Your task to perform on an android device: install app "VLC for Android" Image 0: 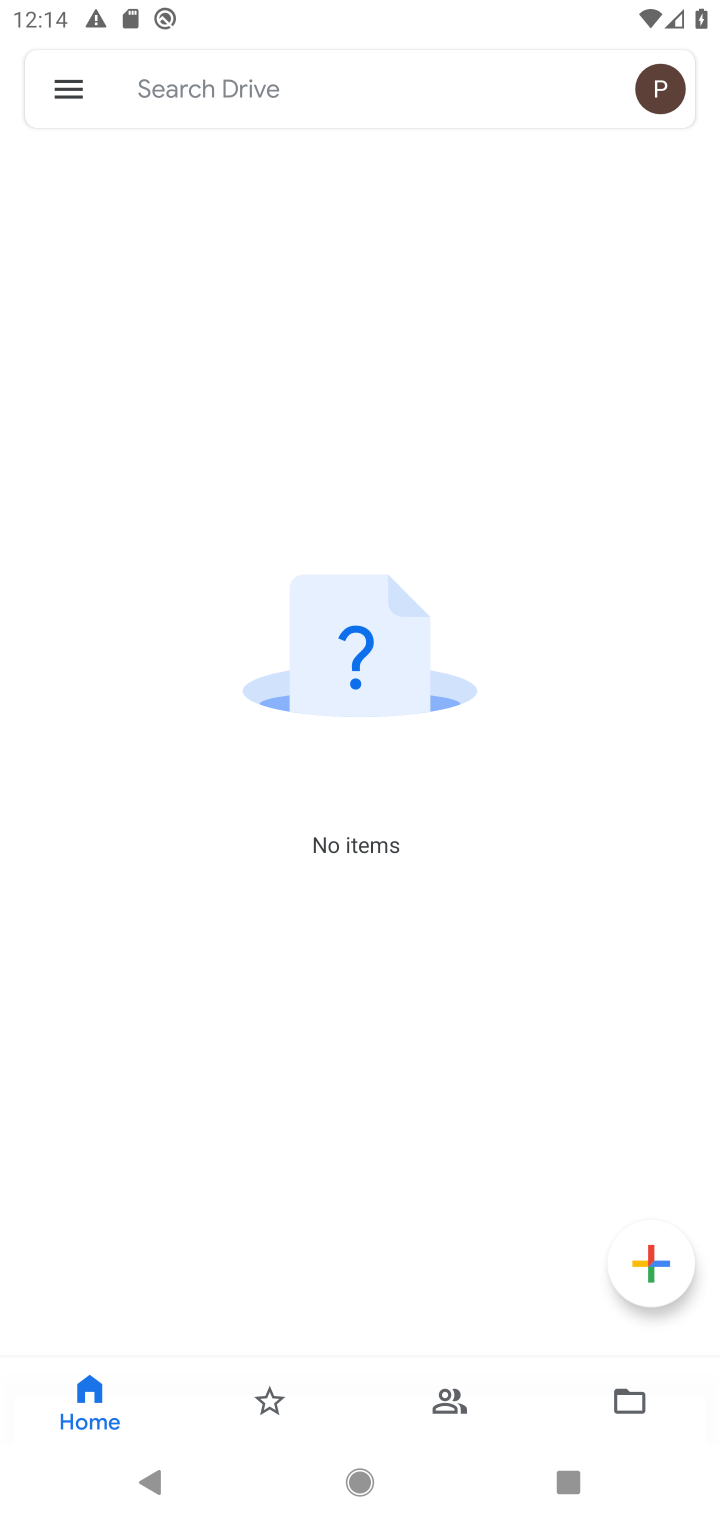
Step 0: press home button
Your task to perform on an android device: install app "VLC for Android" Image 1: 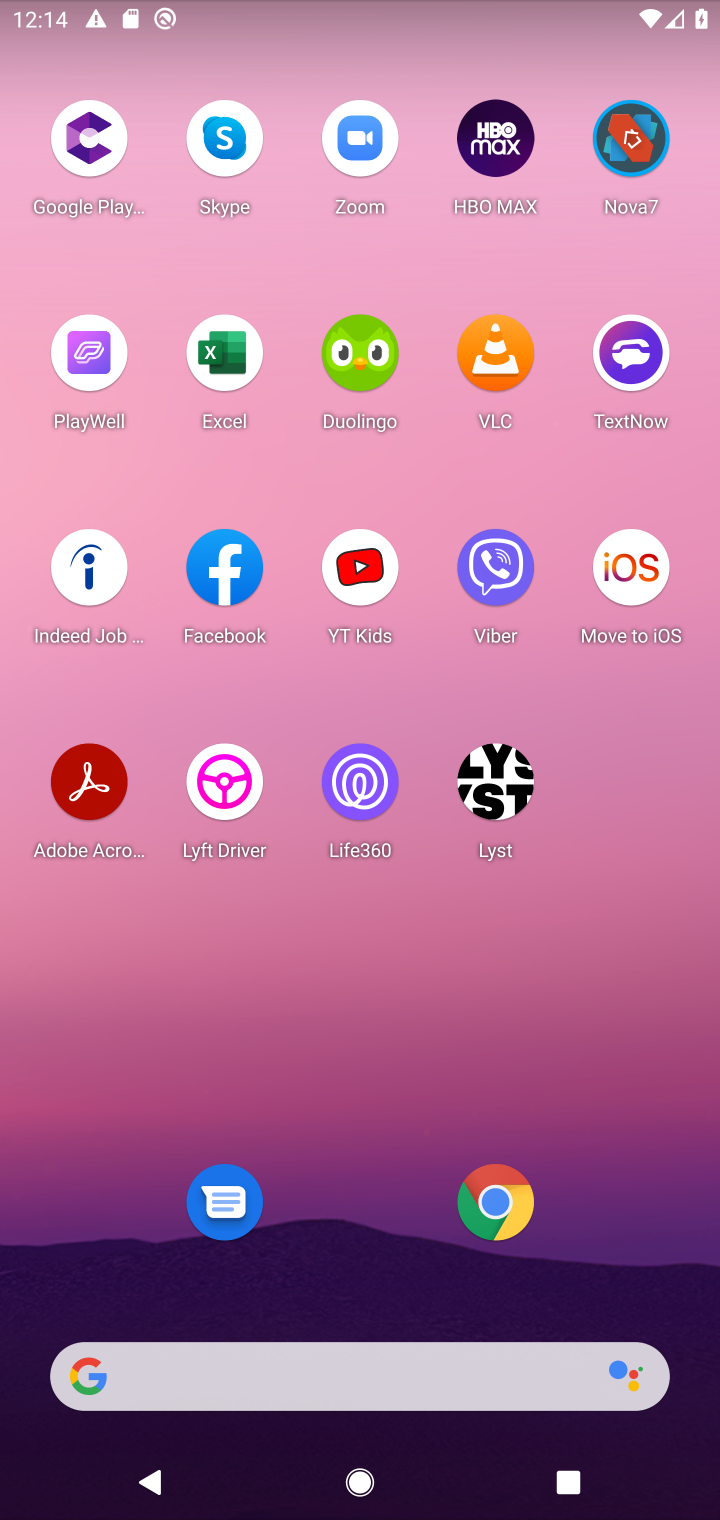
Step 1: click (352, 1364)
Your task to perform on an android device: install app "VLC for Android" Image 2: 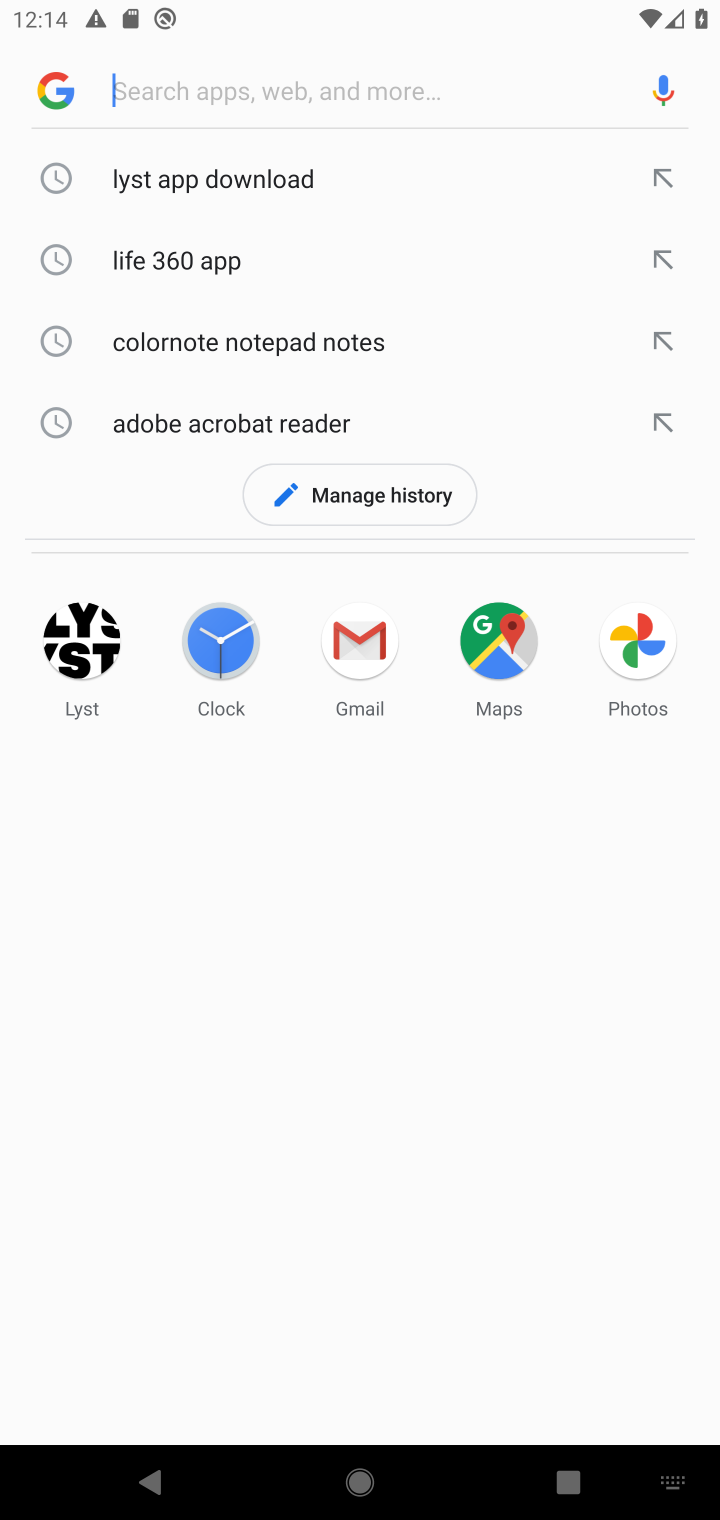
Step 2: type "vlc"
Your task to perform on an android device: install app "VLC for Android" Image 3: 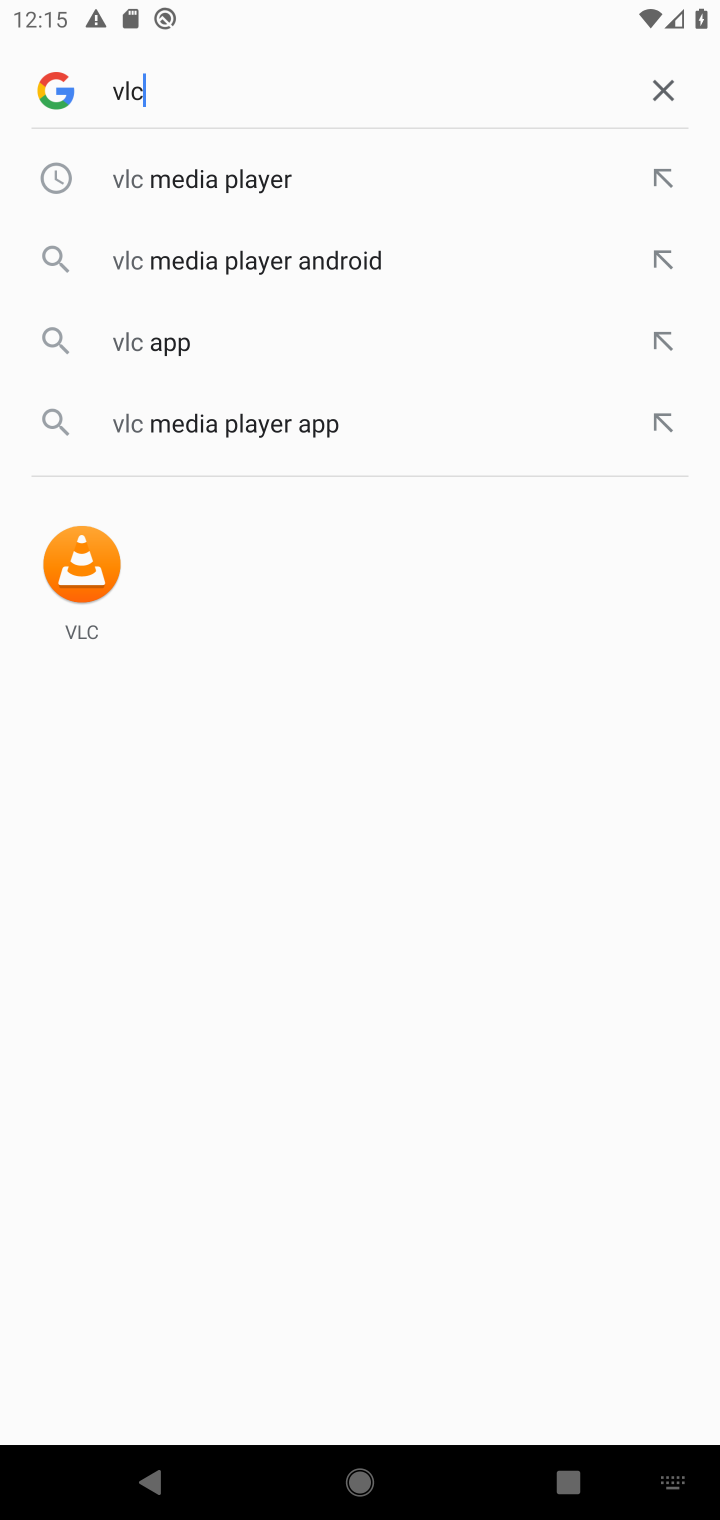
Step 3: click (210, 214)
Your task to perform on an android device: install app "VLC for Android" Image 4: 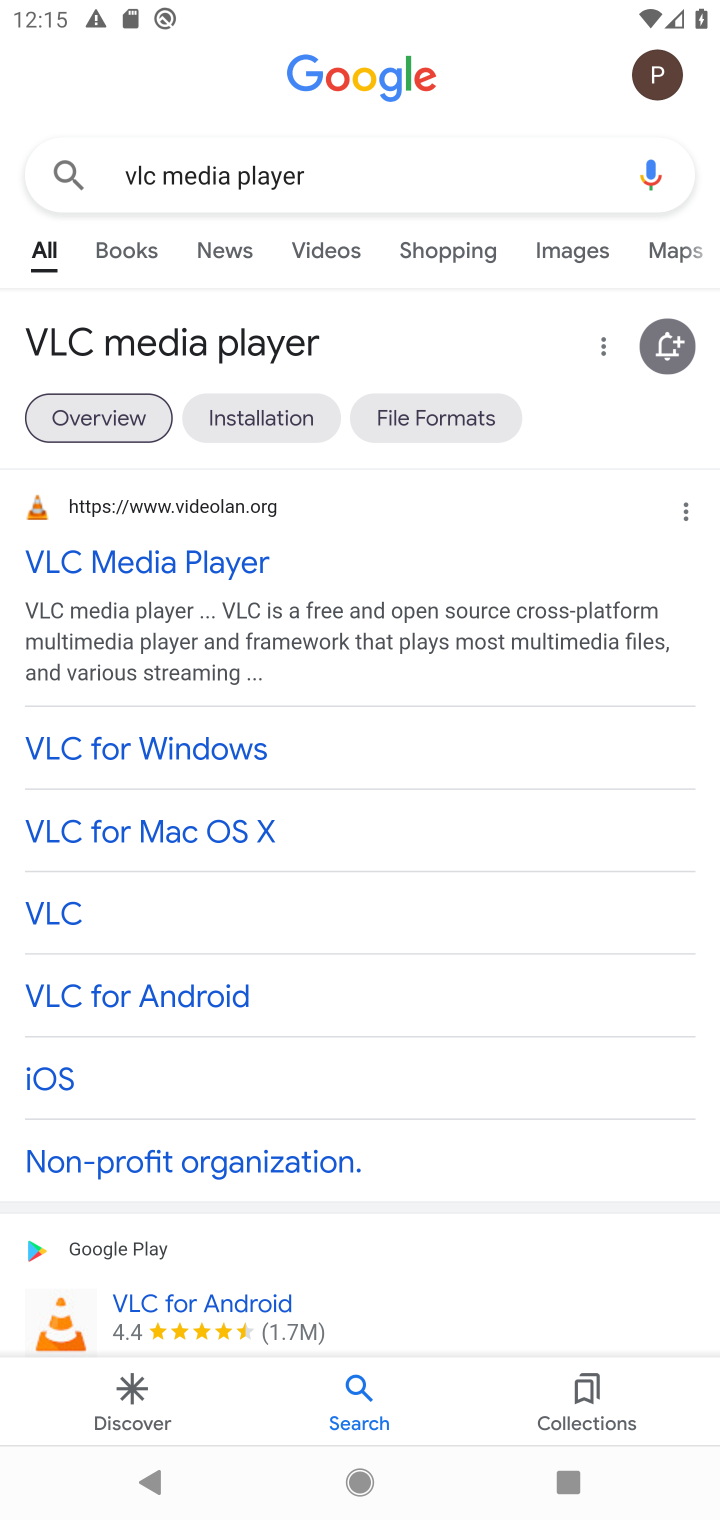
Step 4: drag from (260, 1016) to (261, 494)
Your task to perform on an android device: install app "VLC for Android" Image 5: 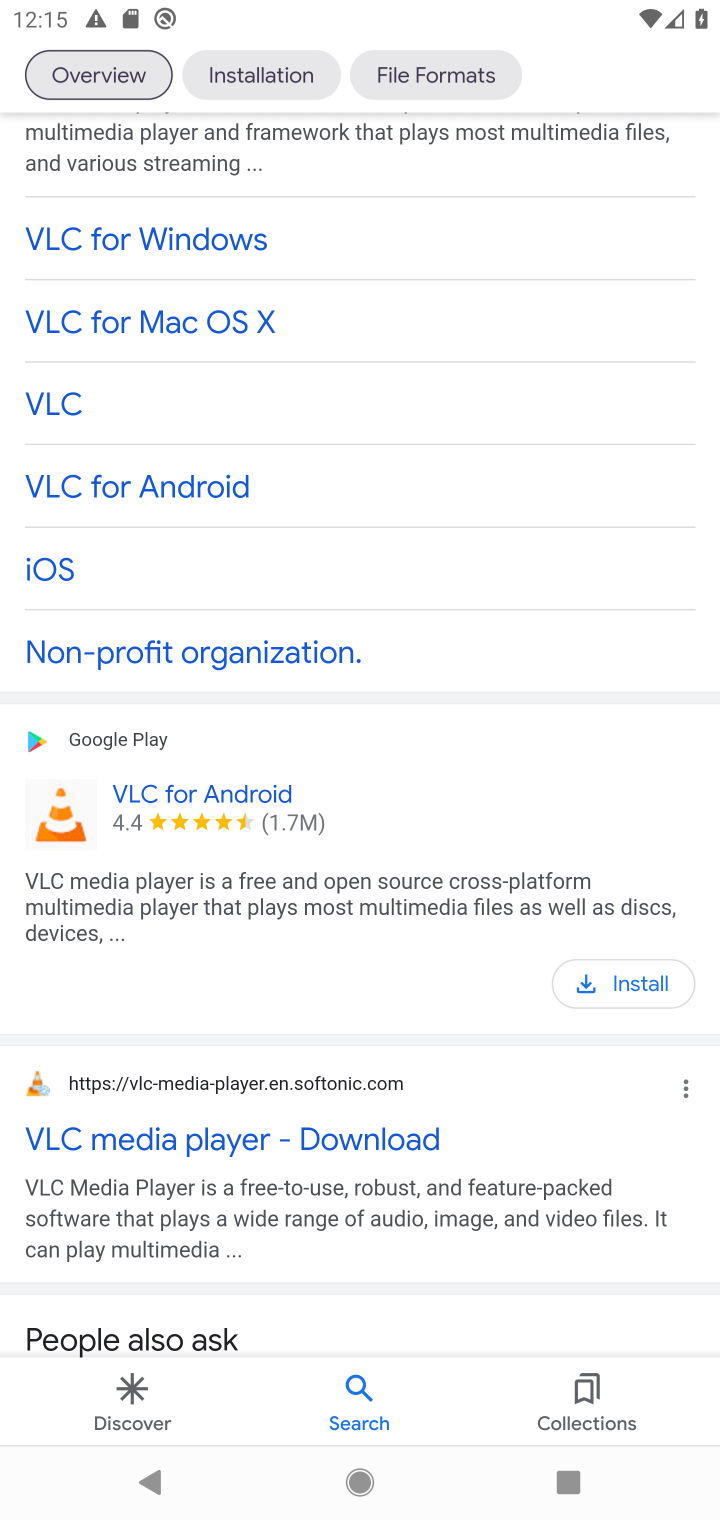
Step 5: click (574, 987)
Your task to perform on an android device: install app "VLC for Android" Image 6: 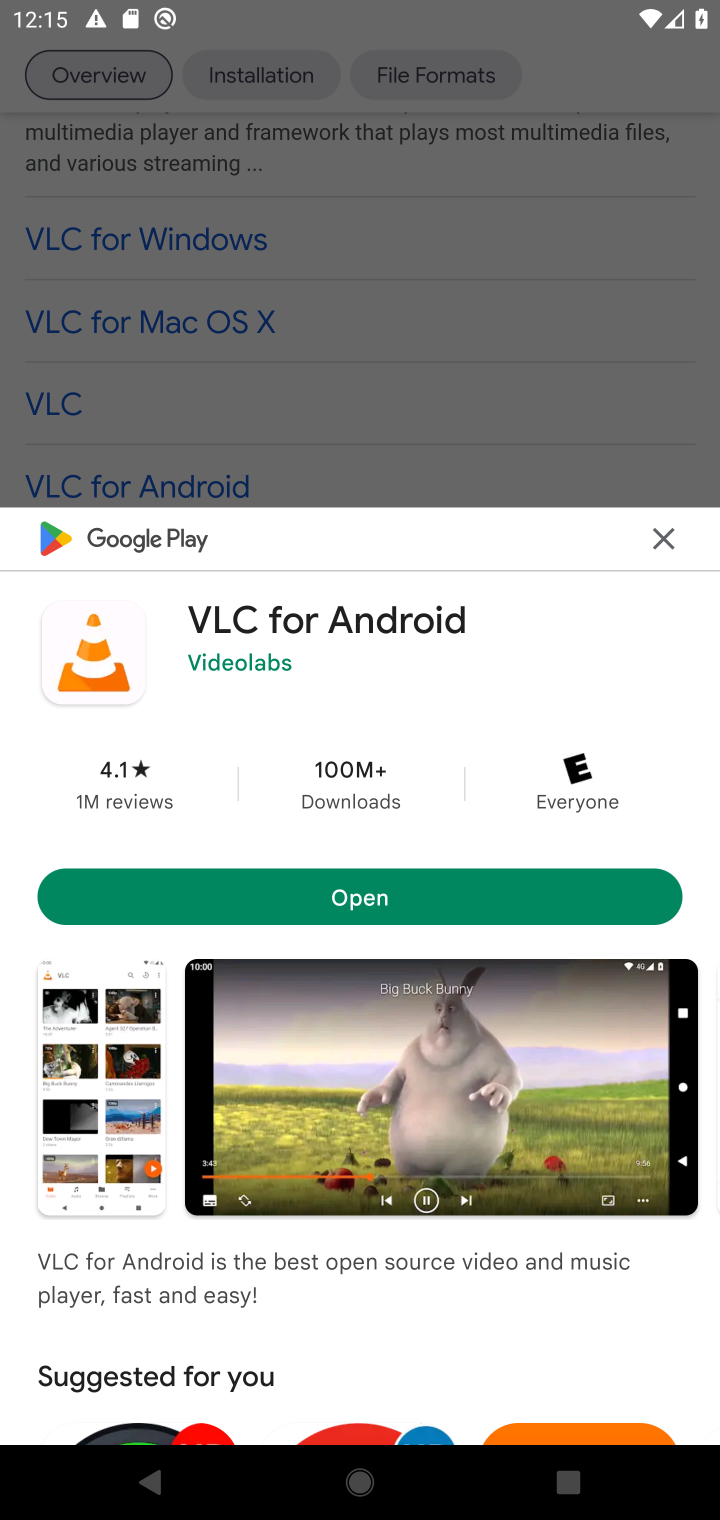
Step 6: click (413, 870)
Your task to perform on an android device: install app "VLC for Android" Image 7: 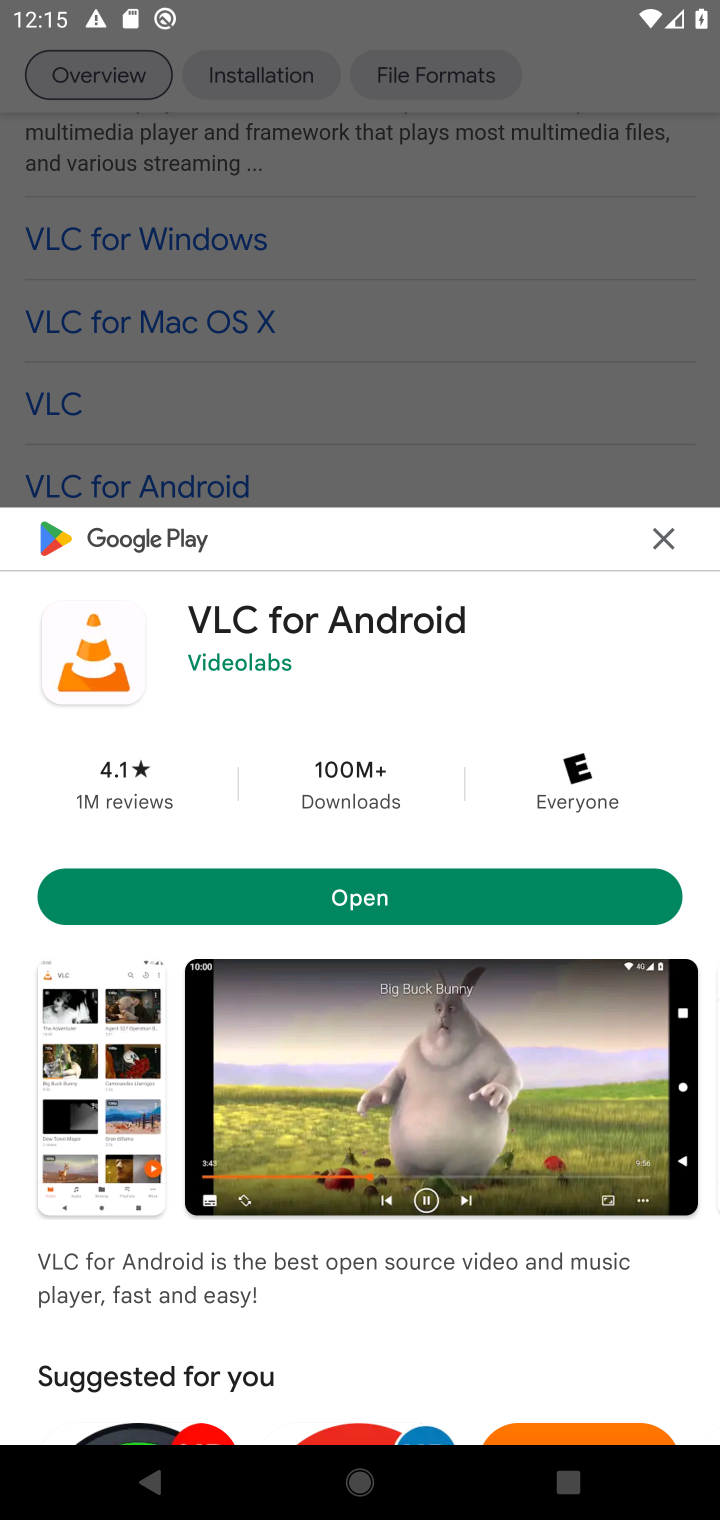
Step 7: task complete